Your task to perform on an android device: Go to Android settings Image 0: 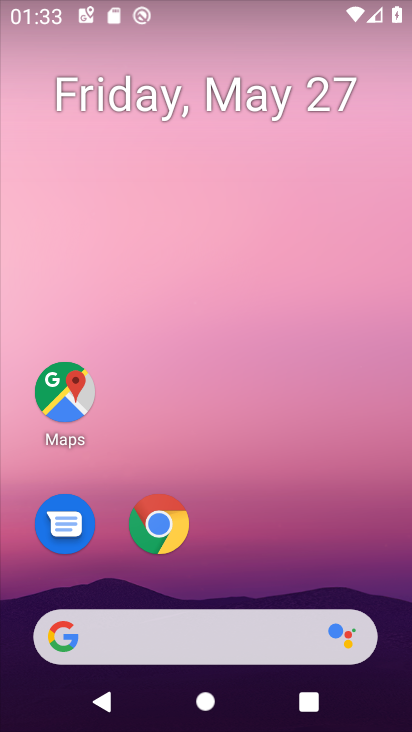
Step 0: drag from (240, 540) to (261, 24)
Your task to perform on an android device: Go to Android settings Image 1: 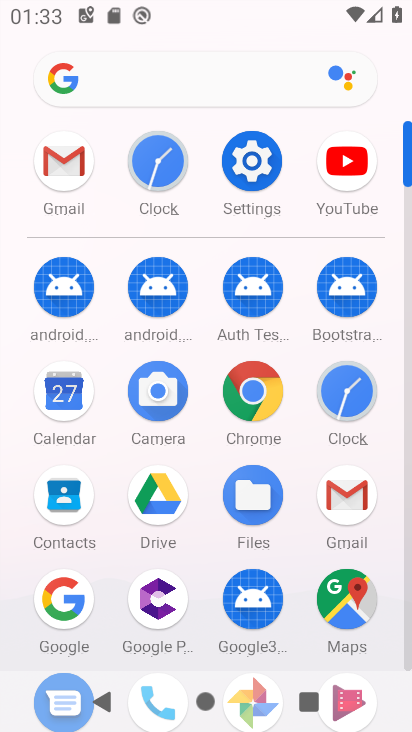
Step 1: click (256, 152)
Your task to perform on an android device: Go to Android settings Image 2: 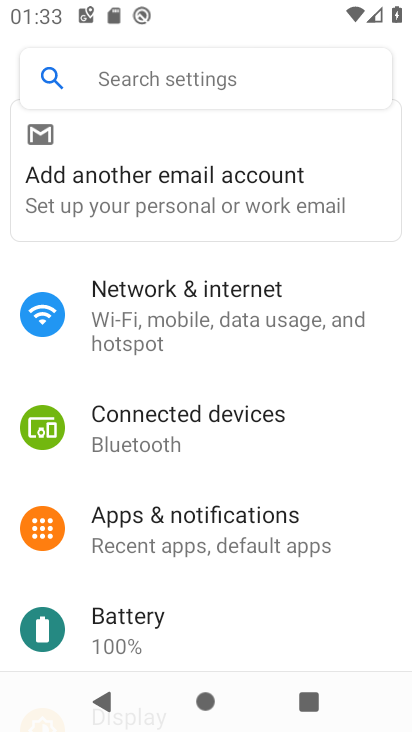
Step 2: drag from (244, 641) to (231, 89)
Your task to perform on an android device: Go to Android settings Image 3: 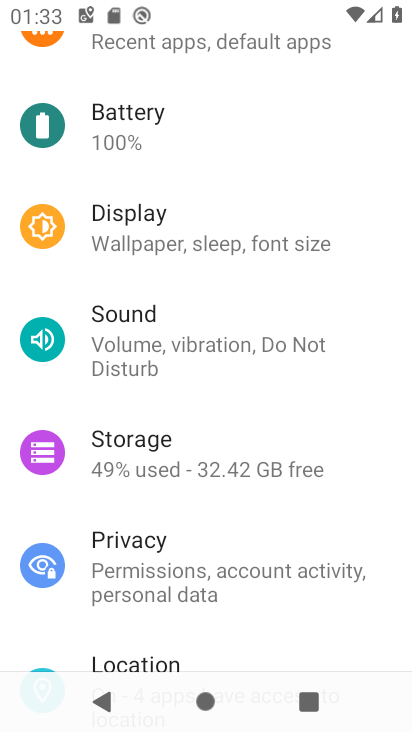
Step 3: drag from (238, 501) to (236, 59)
Your task to perform on an android device: Go to Android settings Image 4: 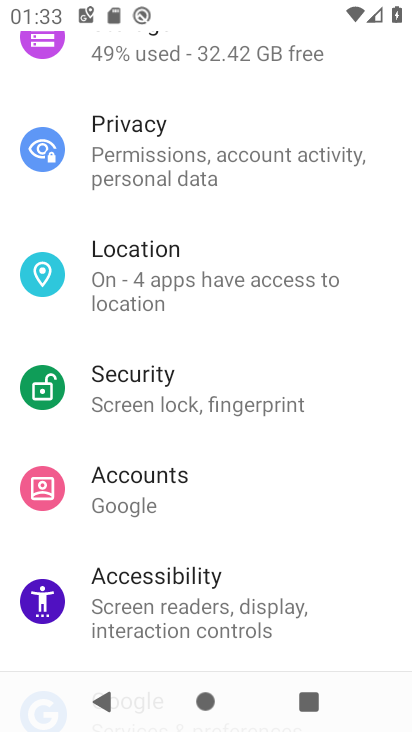
Step 4: drag from (246, 471) to (251, 66)
Your task to perform on an android device: Go to Android settings Image 5: 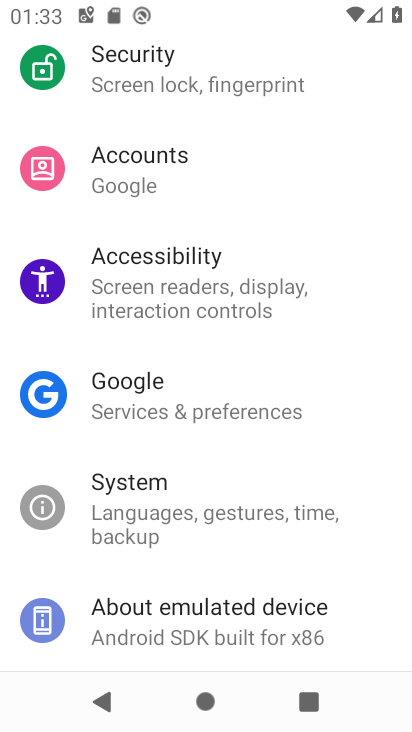
Step 5: click (233, 623)
Your task to perform on an android device: Go to Android settings Image 6: 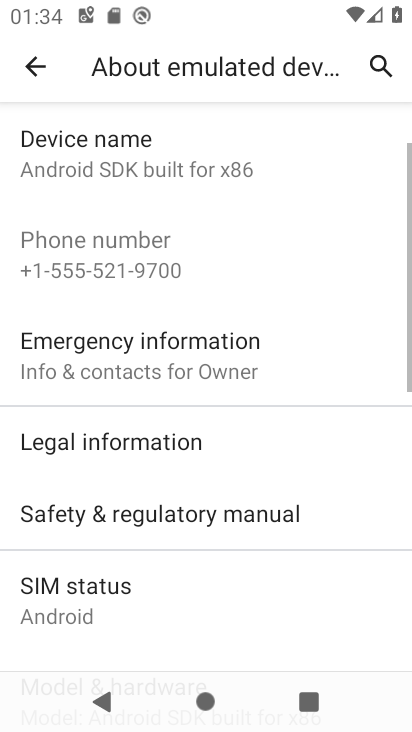
Step 6: task complete